Your task to perform on an android device: Go to location settings Image 0: 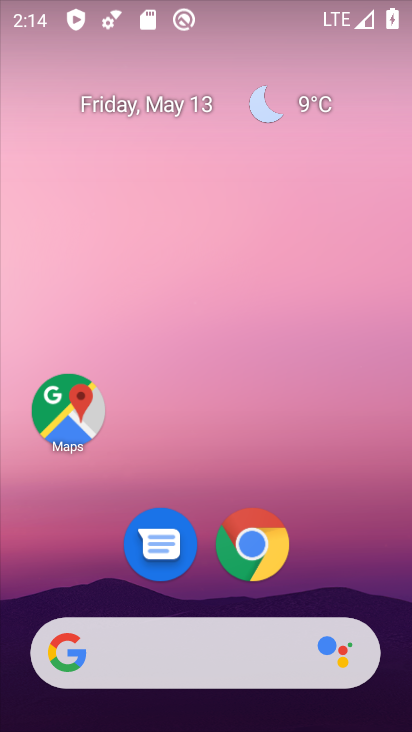
Step 0: drag from (198, 603) to (268, 144)
Your task to perform on an android device: Go to location settings Image 1: 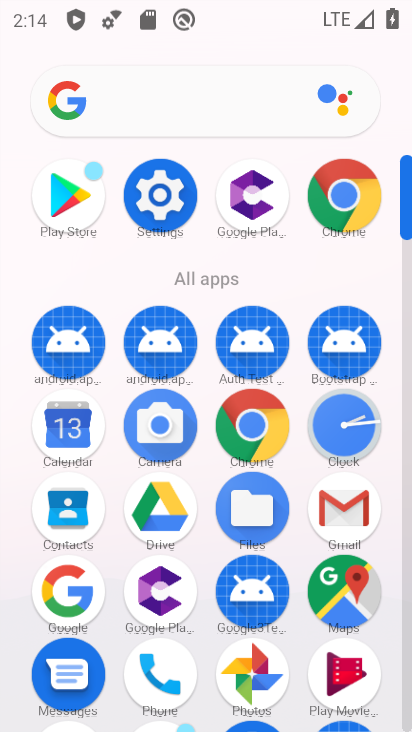
Step 1: drag from (217, 567) to (277, 357)
Your task to perform on an android device: Go to location settings Image 2: 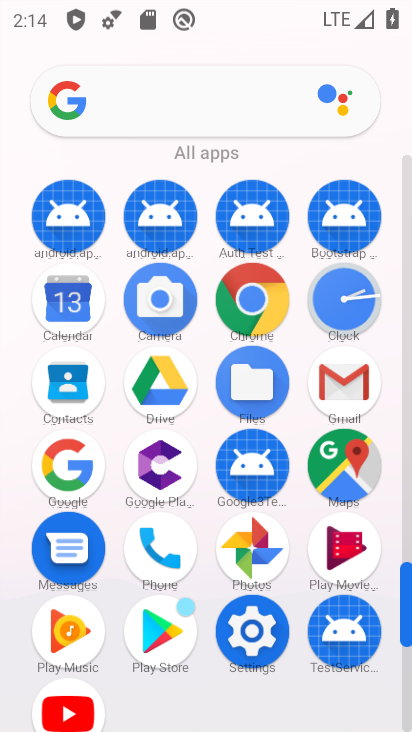
Step 2: click (237, 627)
Your task to perform on an android device: Go to location settings Image 3: 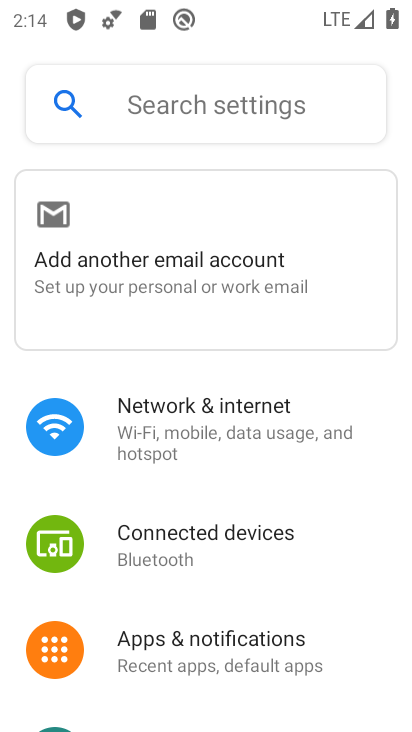
Step 3: drag from (94, 684) to (250, 202)
Your task to perform on an android device: Go to location settings Image 4: 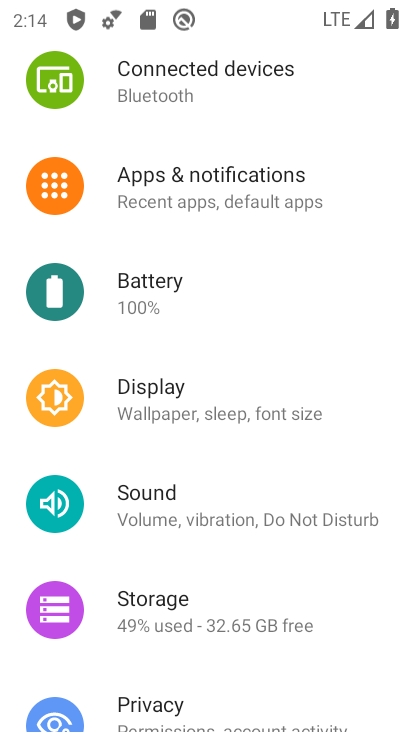
Step 4: drag from (197, 592) to (285, 213)
Your task to perform on an android device: Go to location settings Image 5: 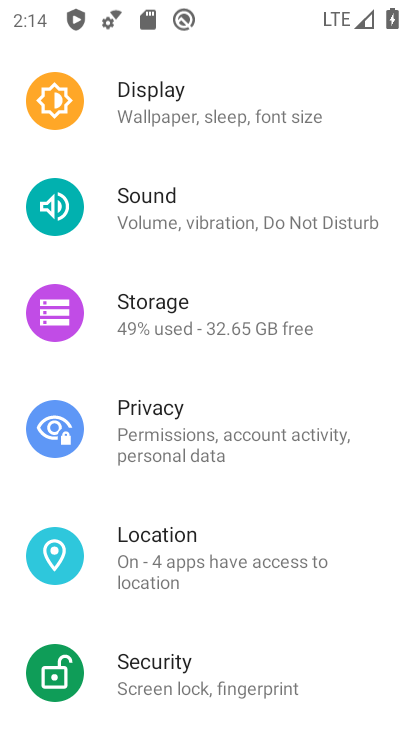
Step 5: click (188, 554)
Your task to perform on an android device: Go to location settings Image 6: 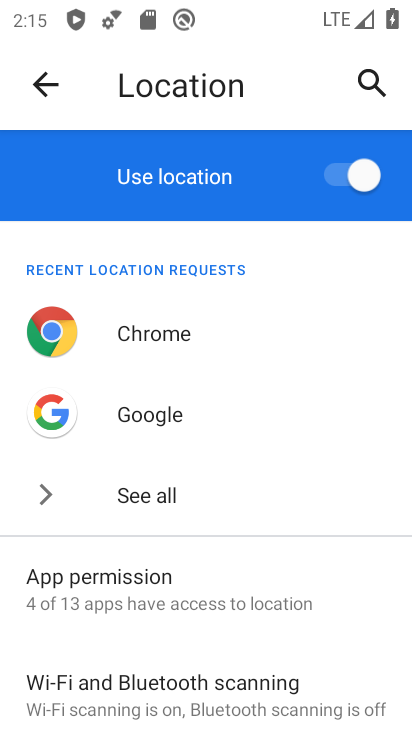
Step 6: task complete